Your task to perform on an android device: allow cookies in the chrome app Image 0: 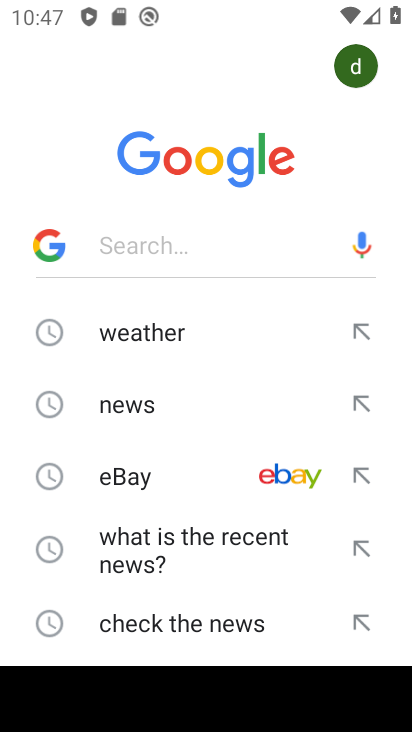
Step 0: press home button
Your task to perform on an android device: allow cookies in the chrome app Image 1: 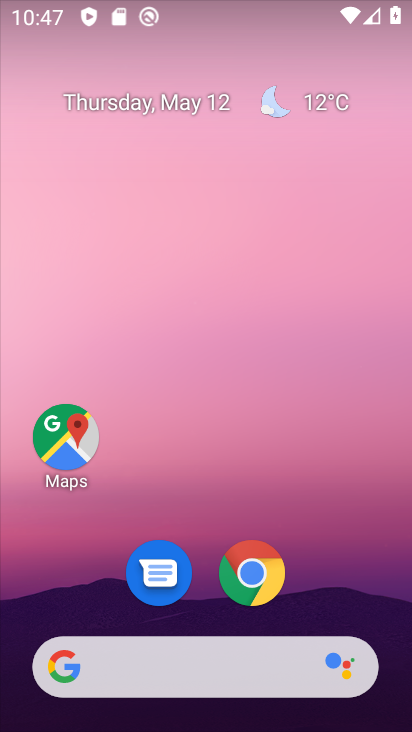
Step 1: click (246, 582)
Your task to perform on an android device: allow cookies in the chrome app Image 2: 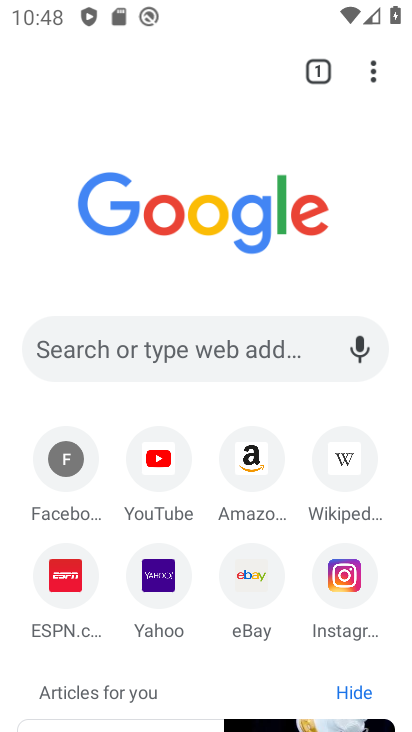
Step 2: click (374, 79)
Your task to perform on an android device: allow cookies in the chrome app Image 3: 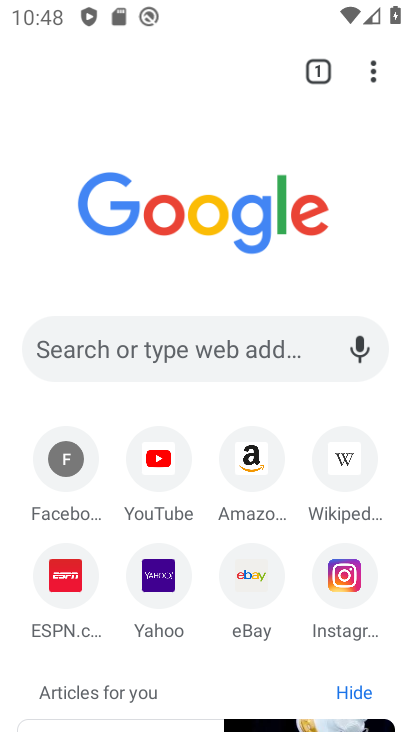
Step 3: click (375, 69)
Your task to perform on an android device: allow cookies in the chrome app Image 4: 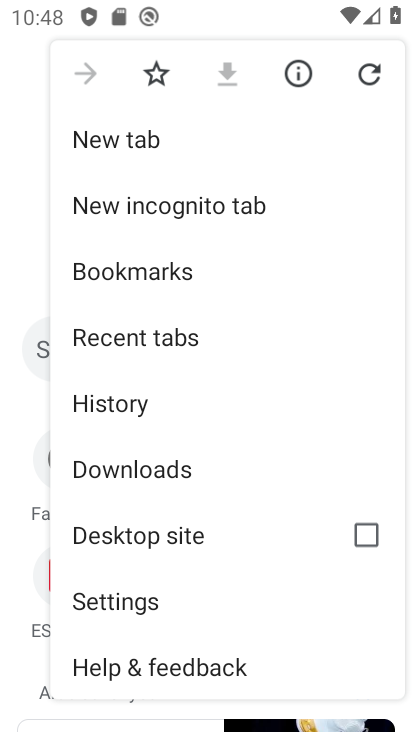
Step 4: click (146, 609)
Your task to perform on an android device: allow cookies in the chrome app Image 5: 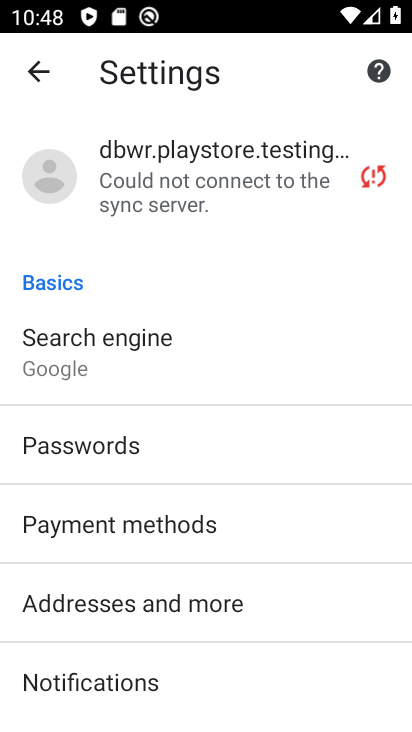
Step 5: drag from (257, 624) to (179, 20)
Your task to perform on an android device: allow cookies in the chrome app Image 6: 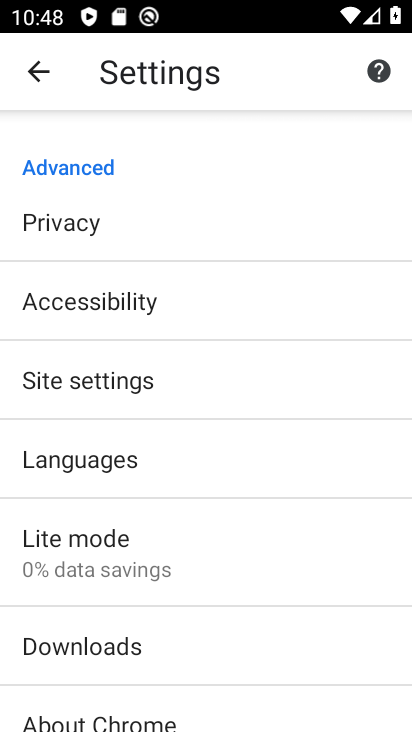
Step 6: drag from (152, 268) to (86, 711)
Your task to perform on an android device: allow cookies in the chrome app Image 7: 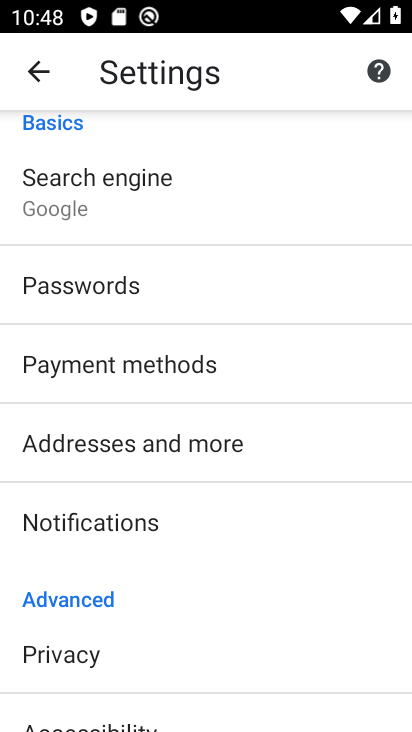
Step 7: drag from (197, 625) to (240, 266)
Your task to perform on an android device: allow cookies in the chrome app Image 8: 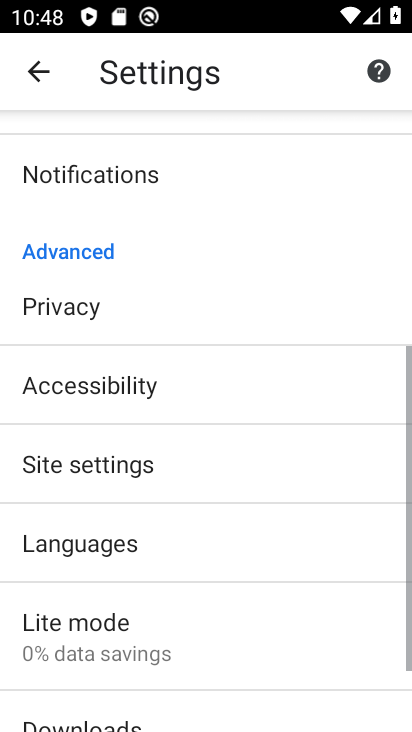
Step 8: click (121, 460)
Your task to perform on an android device: allow cookies in the chrome app Image 9: 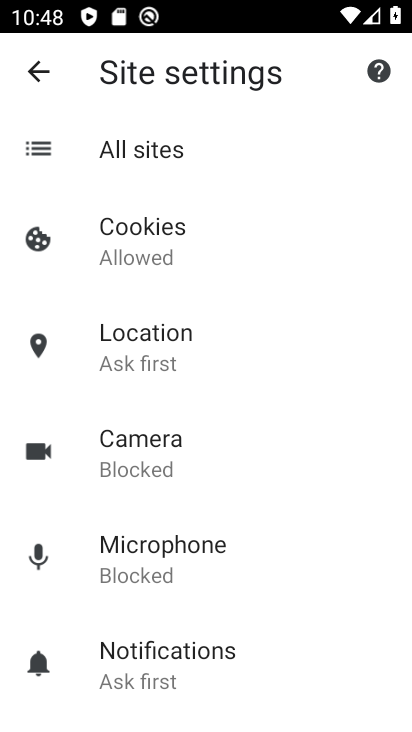
Step 9: drag from (363, 596) to (358, 132)
Your task to perform on an android device: allow cookies in the chrome app Image 10: 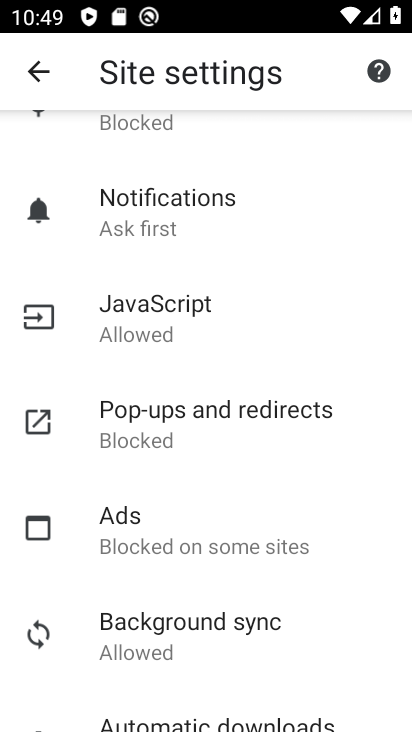
Step 10: drag from (278, 195) to (169, 728)
Your task to perform on an android device: allow cookies in the chrome app Image 11: 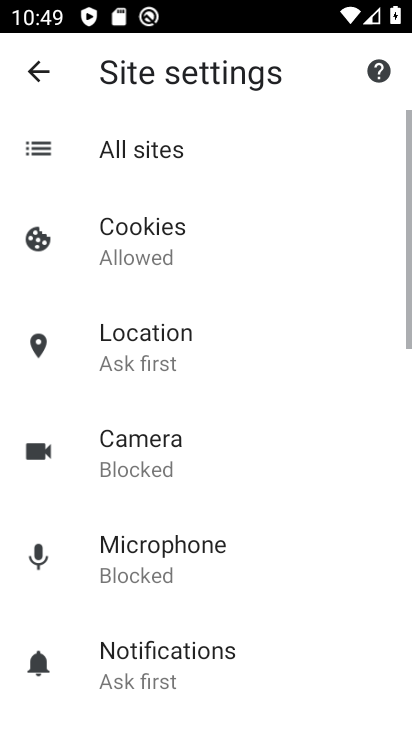
Step 11: drag from (331, 238) to (294, 712)
Your task to perform on an android device: allow cookies in the chrome app Image 12: 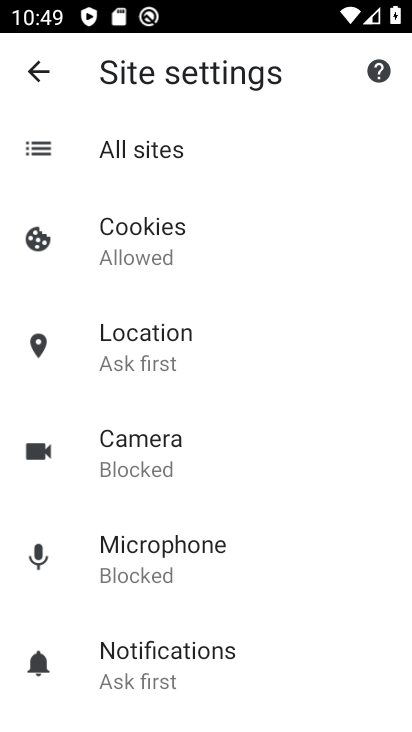
Step 12: click (189, 255)
Your task to perform on an android device: allow cookies in the chrome app Image 13: 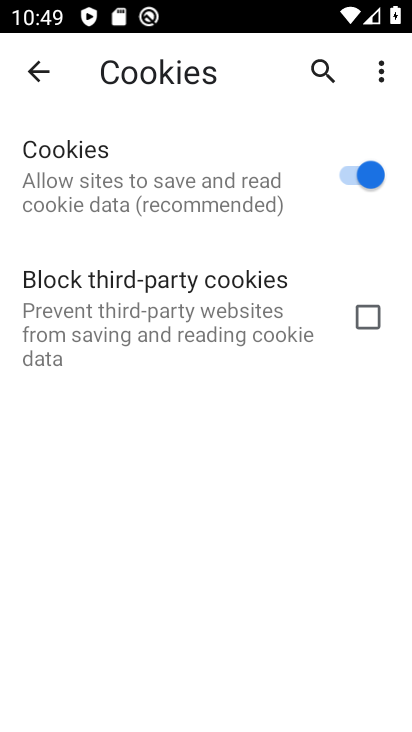
Step 13: task complete